Your task to perform on an android device: Go to network settings Image 0: 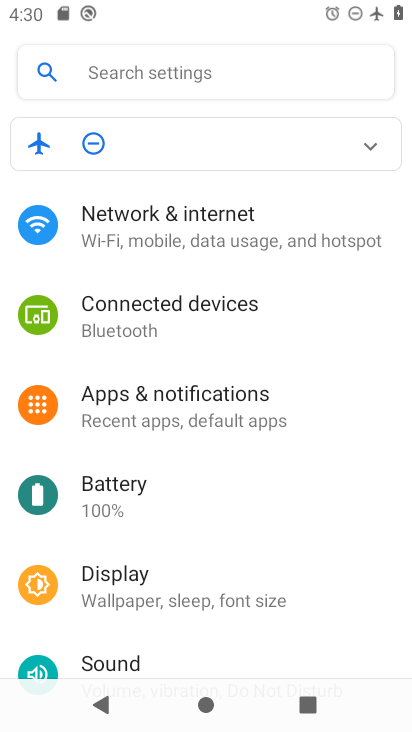
Step 0: click (293, 235)
Your task to perform on an android device: Go to network settings Image 1: 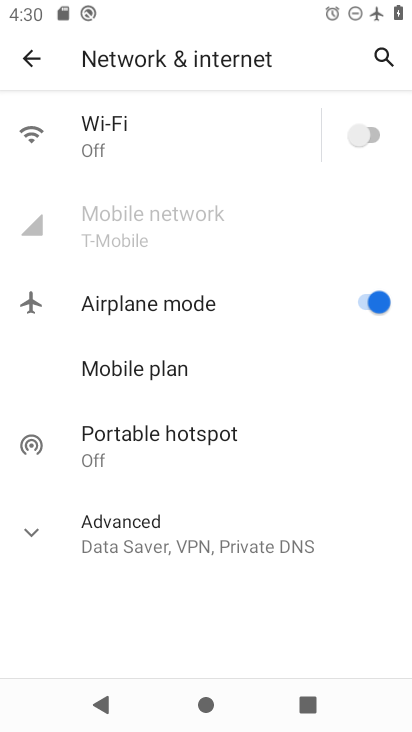
Step 1: task complete